Your task to perform on an android device: uninstall "Google Duo" Image 0: 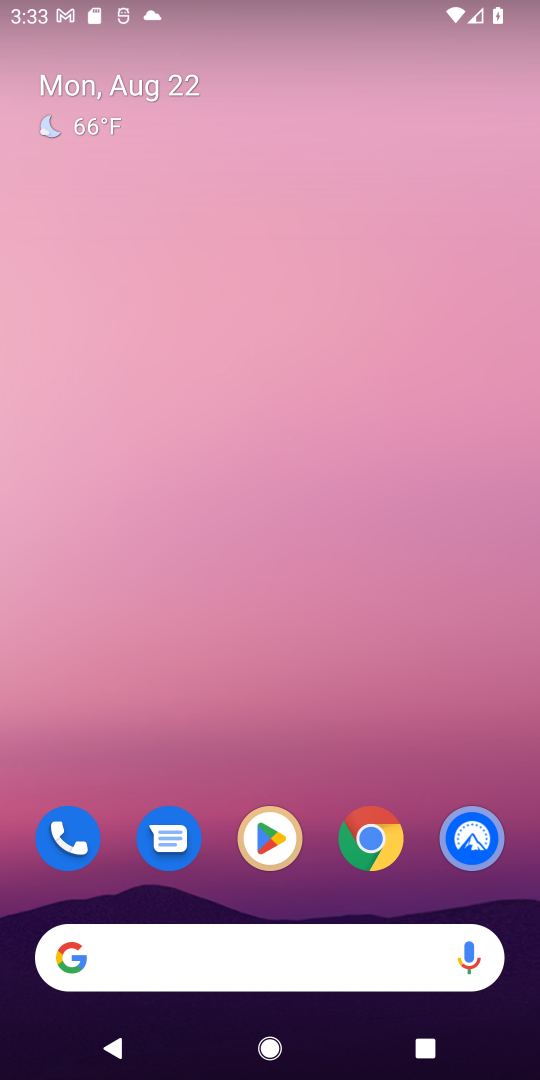
Step 0: click (276, 828)
Your task to perform on an android device: uninstall "Google Duo" Image 1: 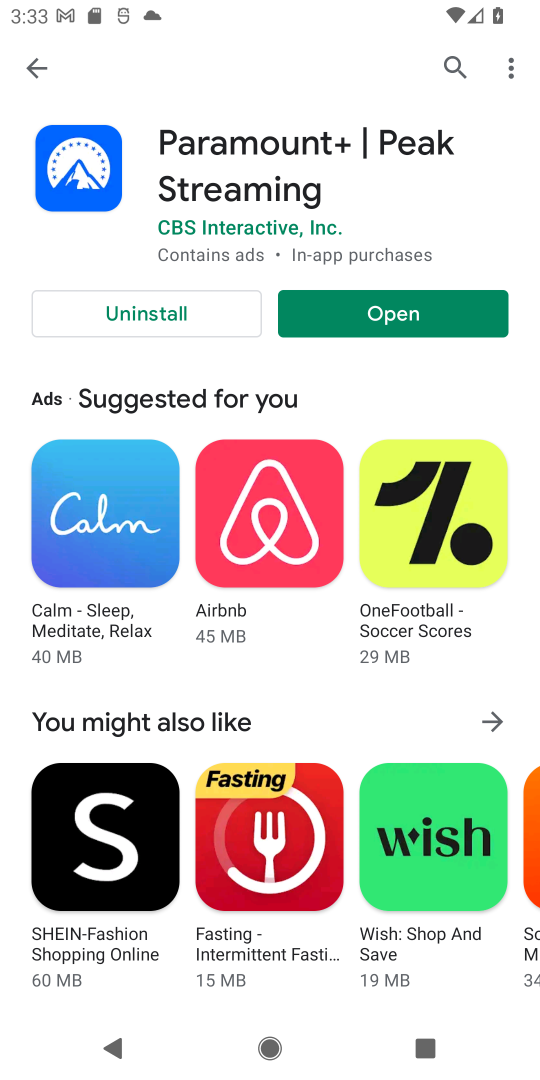
Step 1: click (460, 64)
Your task to perform on an android device: uninstall "Google Duo" Image 2: 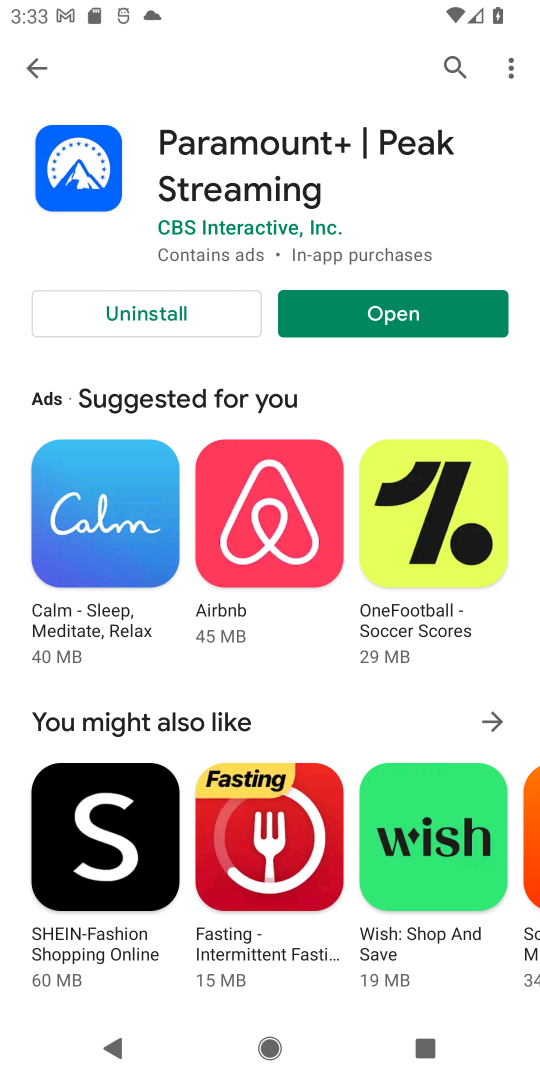
Step 2: click (462, 68)
Your task to perform on an android device: uninstall "Google Duo" Image 3: 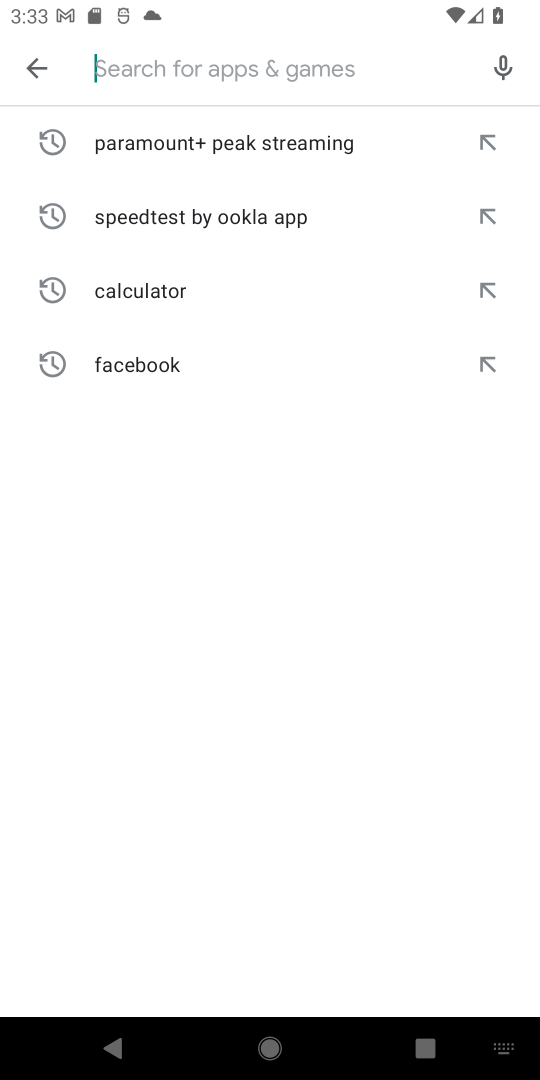
Step 3: click (252, 77)
Your task to perform on an android device: uninstall "Google Duo" Image 4: 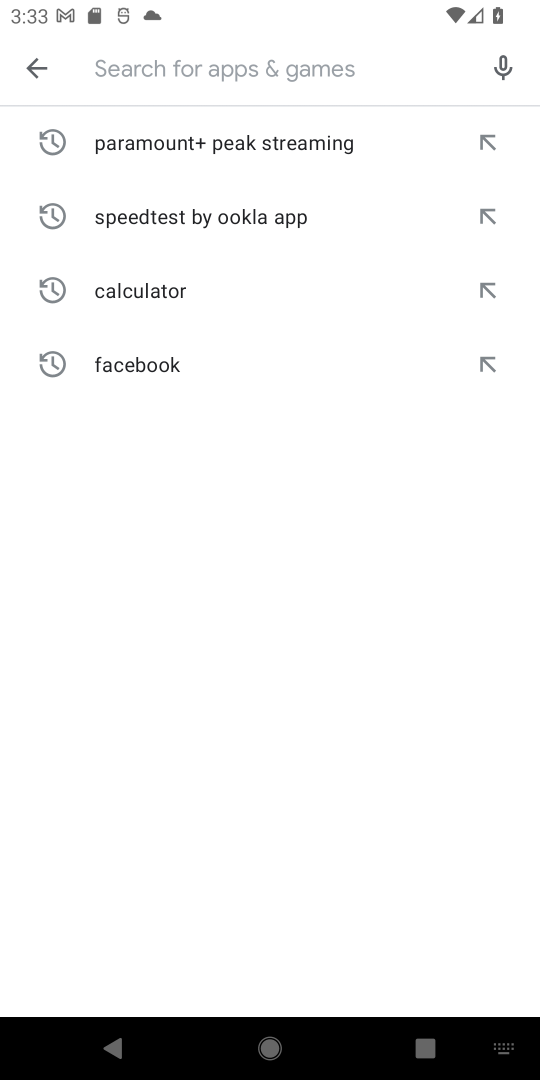
Step 4: click (158, 76)
Your task to perform on an android device: uninstall "Google Duo" Image 5: 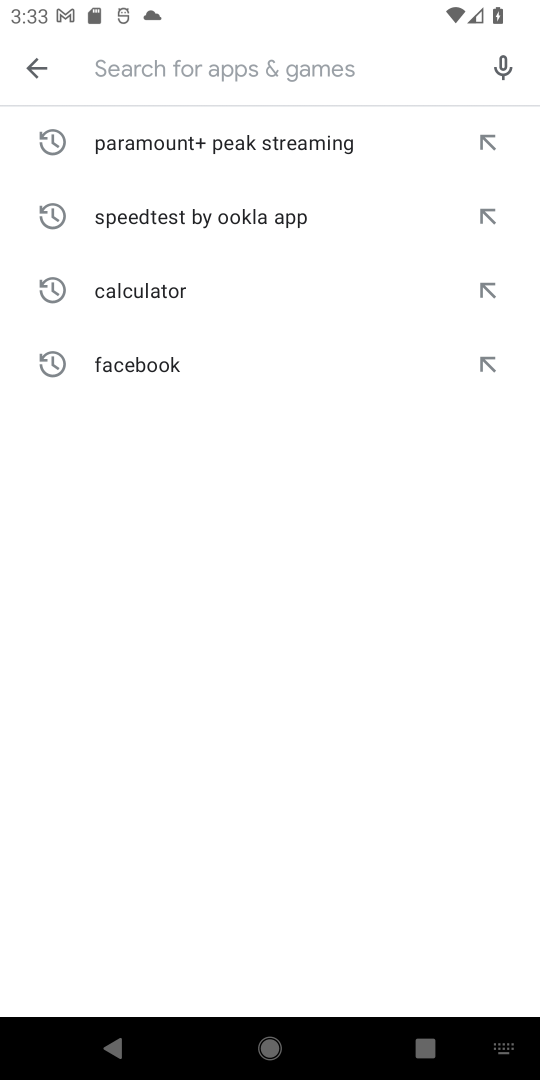
Step 5: type "Google Duo"
Your task to perform on an android device: uninstall "Google Duo" Image 6: 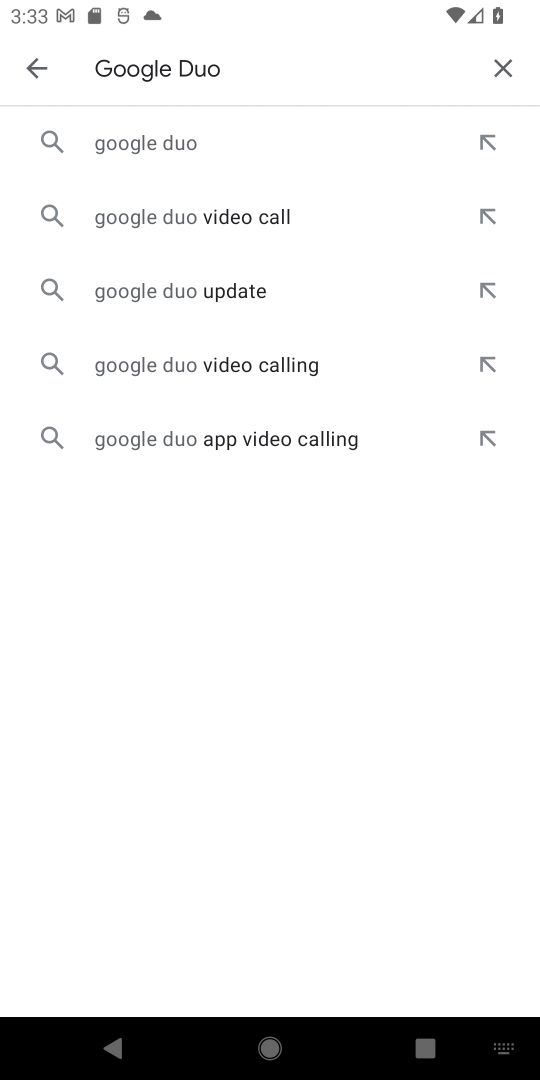
Step 6: click (199, 135)
Your task to perform on an android device: uninstall "Google Duo" Image 7: 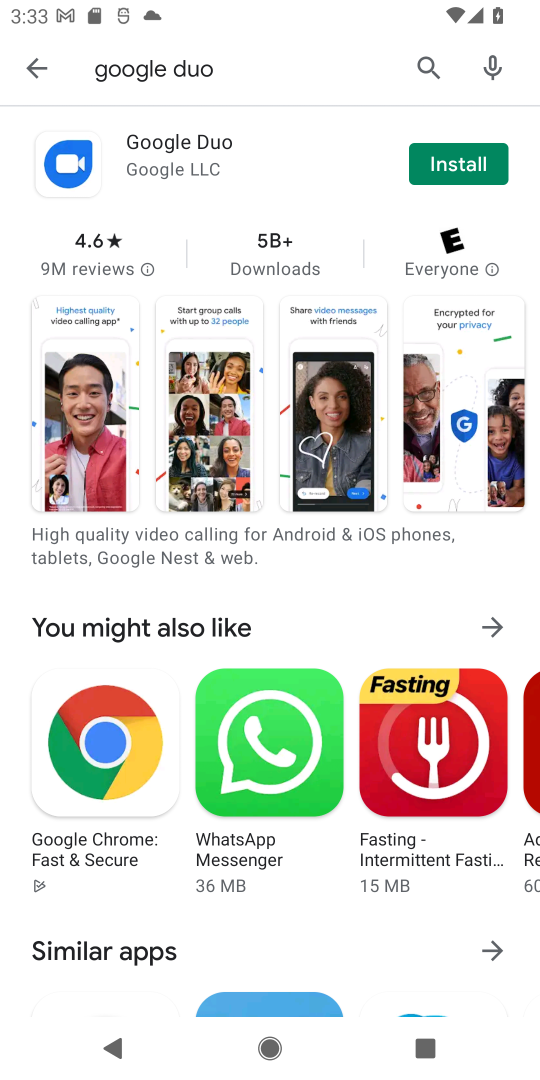
Step 7: click (185, 143)
Your task to perform on an android device: uninstall "Google Duo" Image 8: 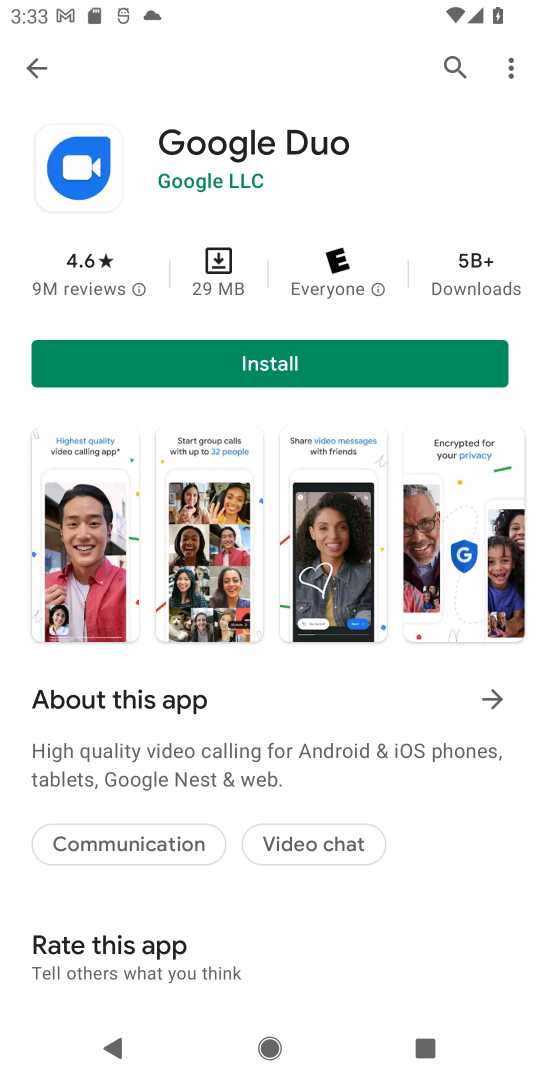
Step 8: task complete